Your task to perform on an android device: Go to Google Image 0: 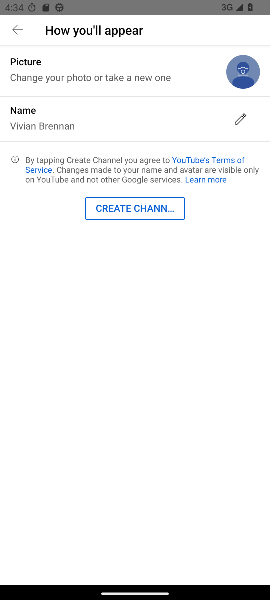
Step 0: press home button
Your task to perform on an android device: Go to Google Image 1: 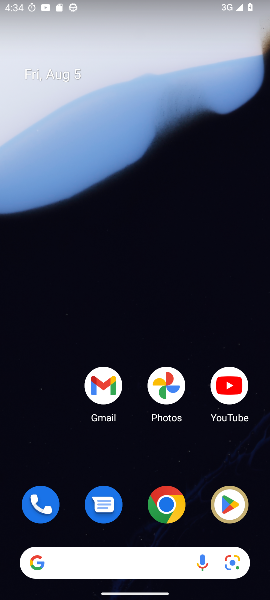
Step 1: click (72, 564)
Your task to perform on an android device: Go to Google Image 2: 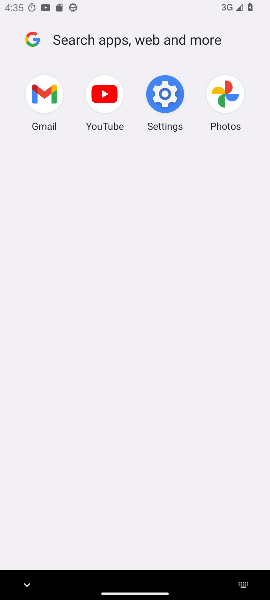
Step 2: task complete